Your task to perform on an android device: change your default location settings in chrome Image 0: 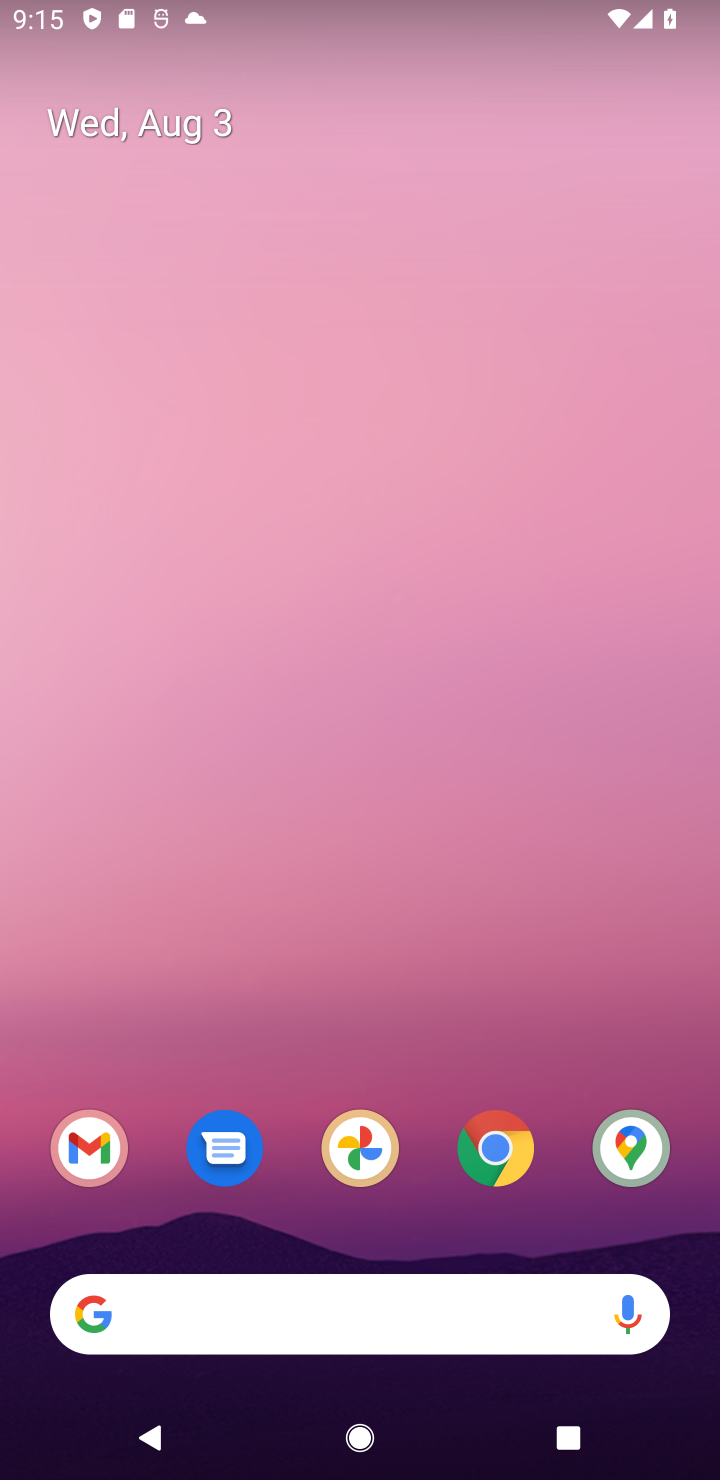
Step 0: drag from (442, 701) to (538, 50)
Your task to perform on an android device: change your default location settings in chrome Image 1: 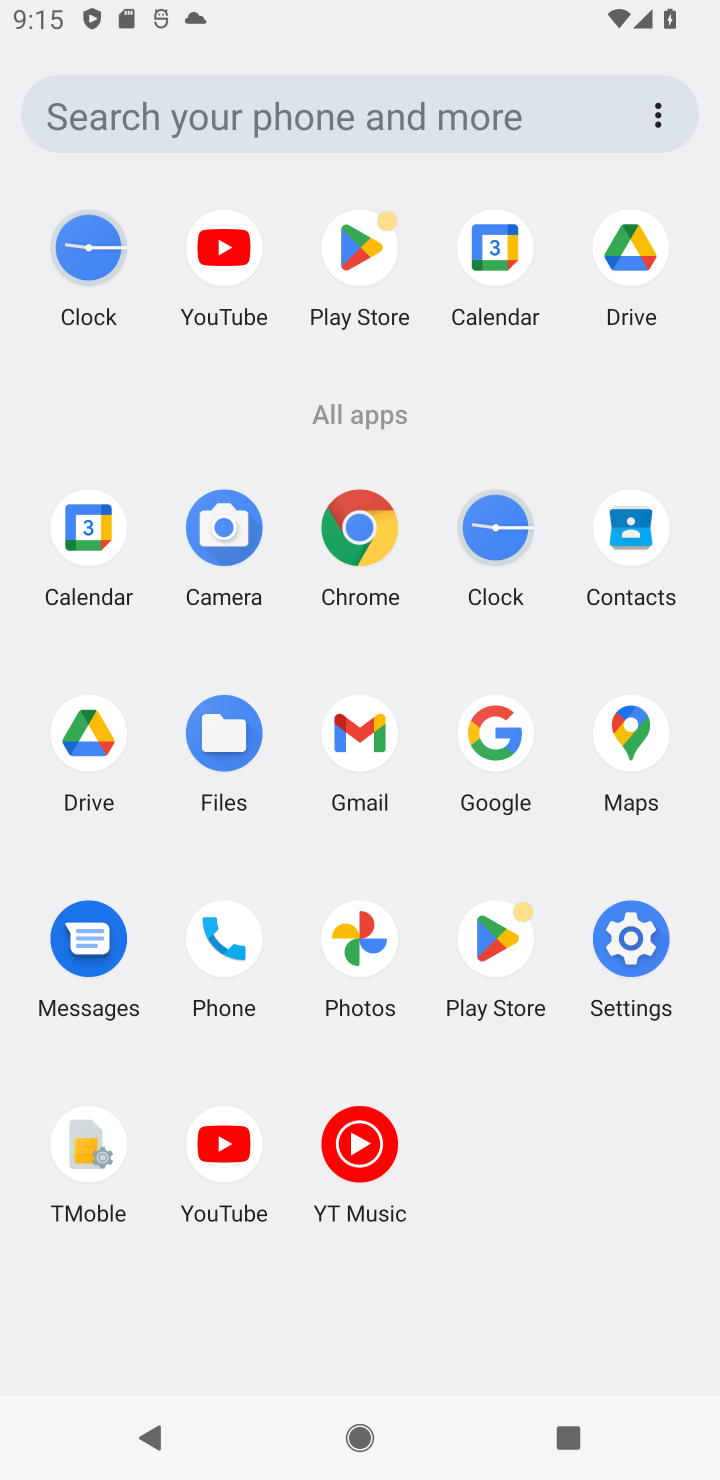
Step 1: click (646, 951)
Your task to perform on an android device: change your default location settings in chrome Image 2: 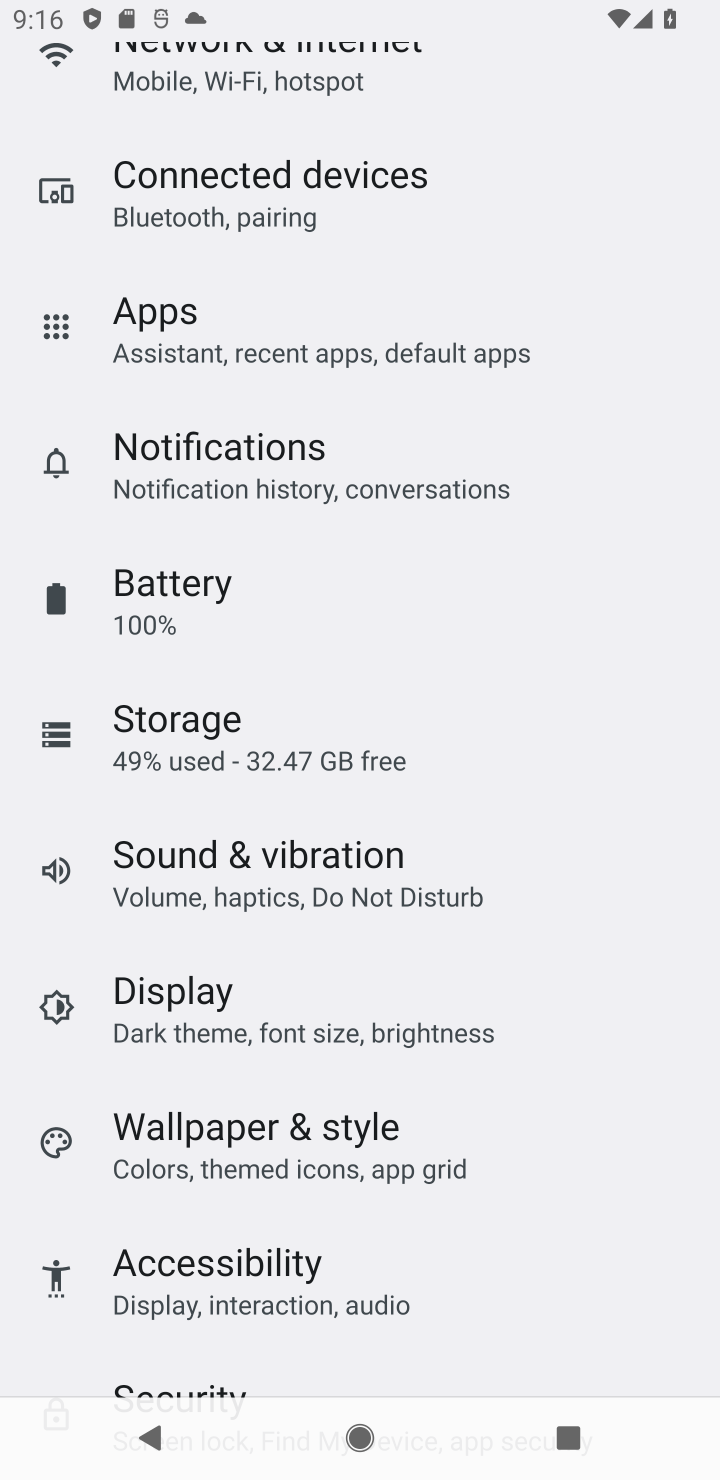
Step 2: task complete